Your task to perform on an android device: Open Android settings Image 0: 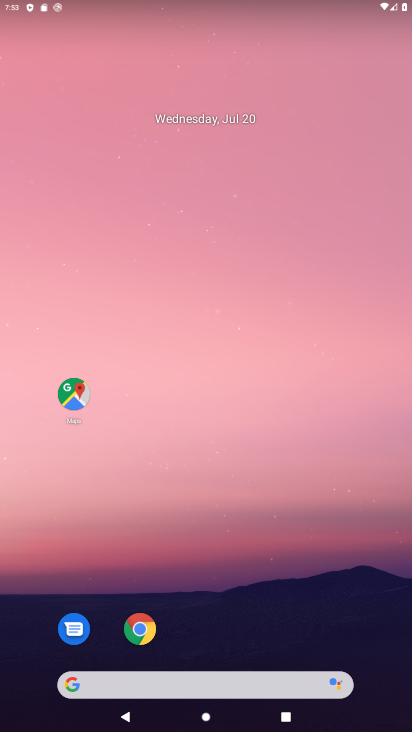
Step 0: drag from (181, 646) to (170, 183)
Your task to perform on an android device: Open Android settings Image 1: 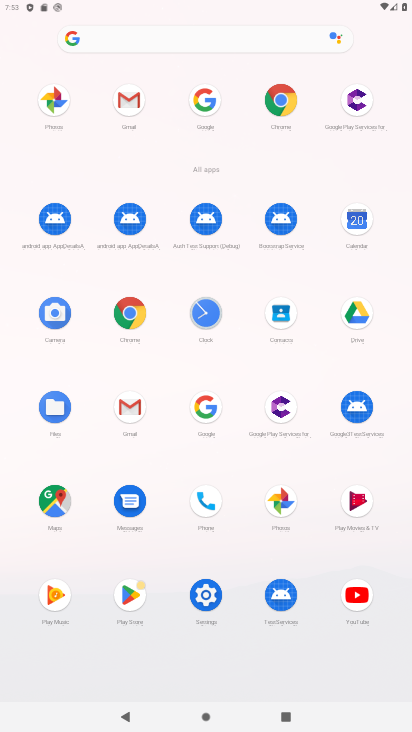
Step 1: click (200, 598)
Your task to perform on an android device: Open Android settings Image 2: 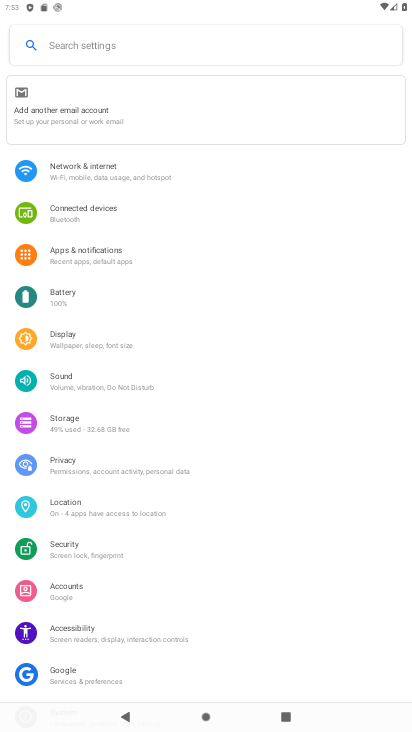
Step 2: drag from (167, 605) to (159, 340)
Your task to perform on an android device: Open Android settings Image 3: 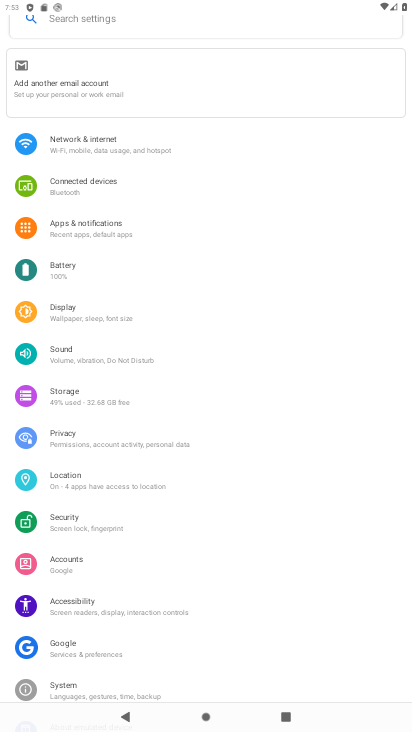
Step 3: drag from (62, 674) to (79, 473)
Your task to perform on an android device: Open Android settings Image 4: 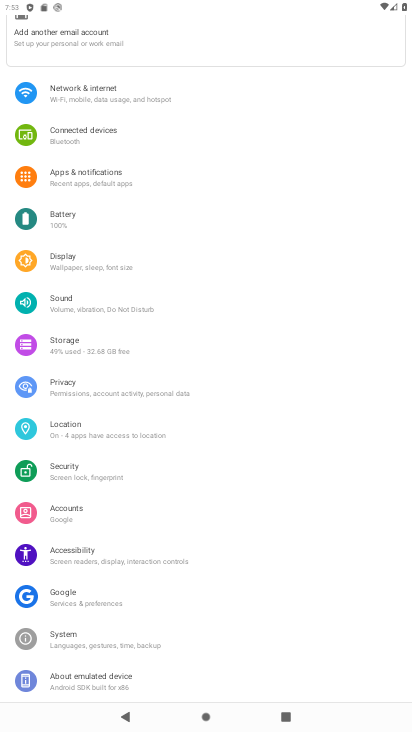
Step 4: click (51, 680)
Your task to perform on an android device: Open Android settings Image 5: 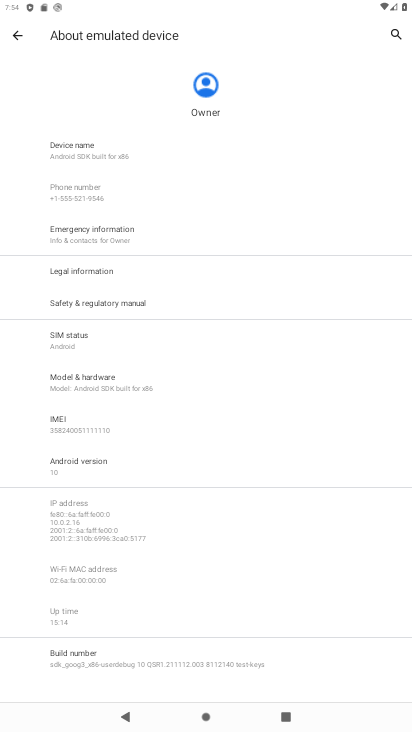
Step 5: drag from (92, 619) to (103, 423)
Your task to perform on an android device: Open Android settings Image 6: 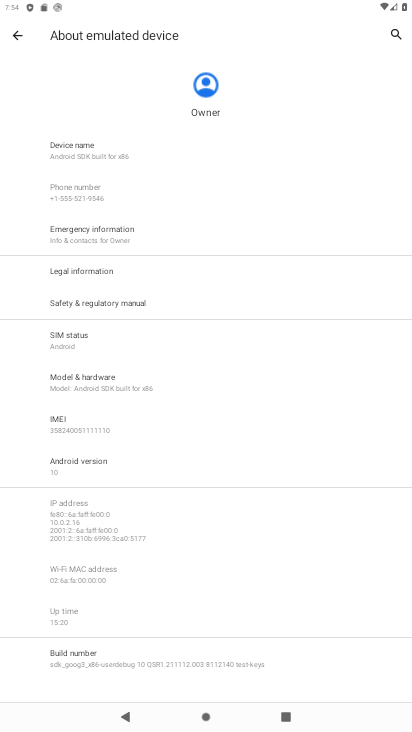
Step 6: drag from (163, 555) to (168, 271)
Your task to perform on an android device: Open Android settings Image 7: 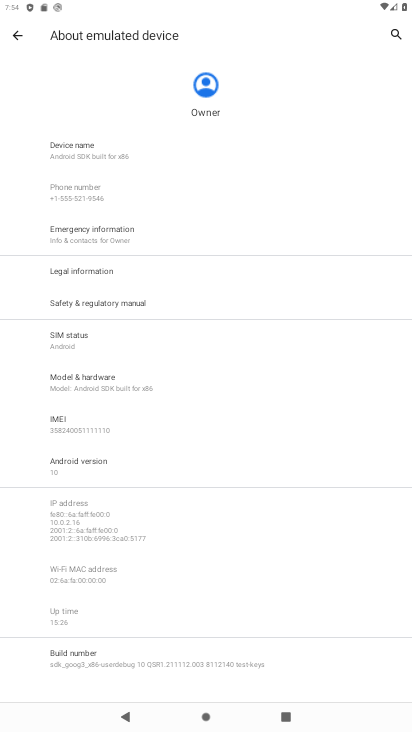
Step 7: click (16, 32)
Your task to perform on an android device: Open Android settings Image 8: 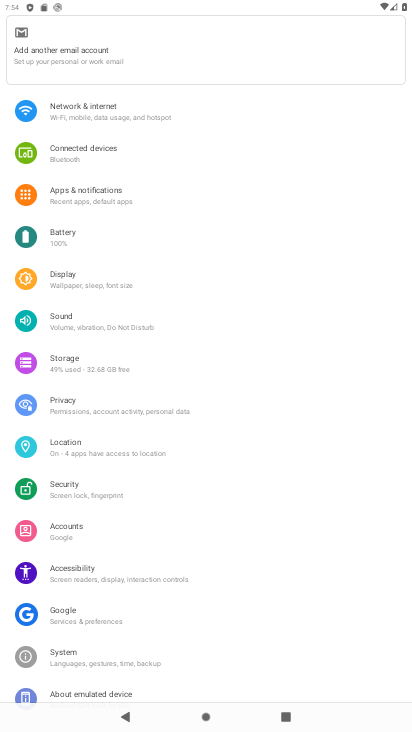
Step 8: drag from (106, 569) to (106, 397)
Your task to perform on an android device: Open Android settings Image 9: 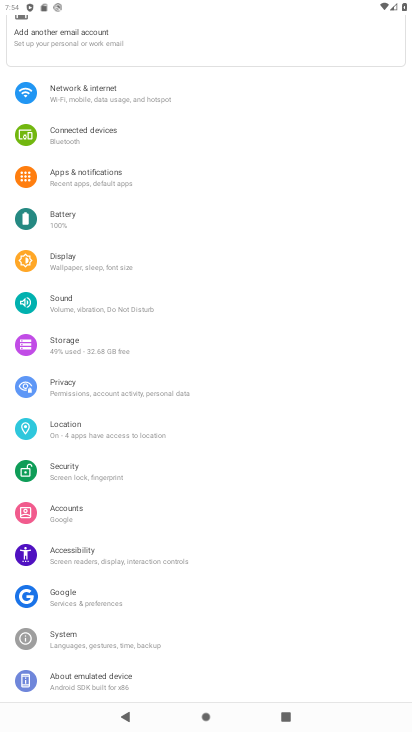
Step 9: click (83, 683)
Your task to perform on an android device: Open Android settings Image 10: 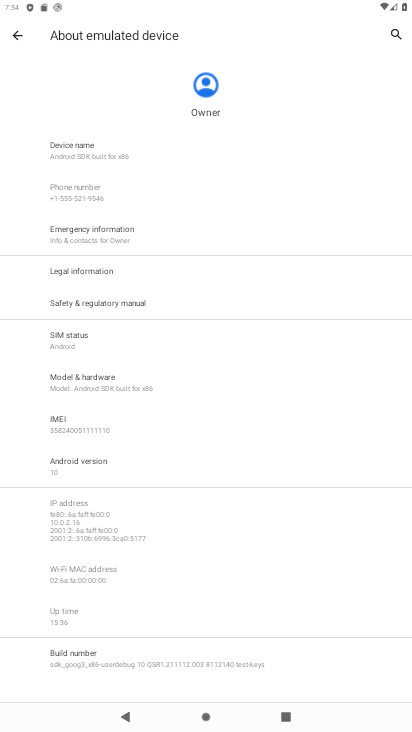
Step 10: click (89, 464)
Your task to perform on an android device: Open Android settings Image 11: 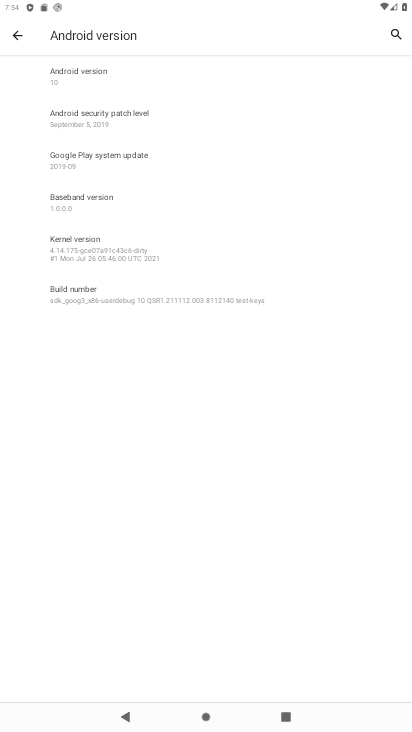
Step 11: task complete